Your task to perform on an android device: Go to privacy settings Image 0: 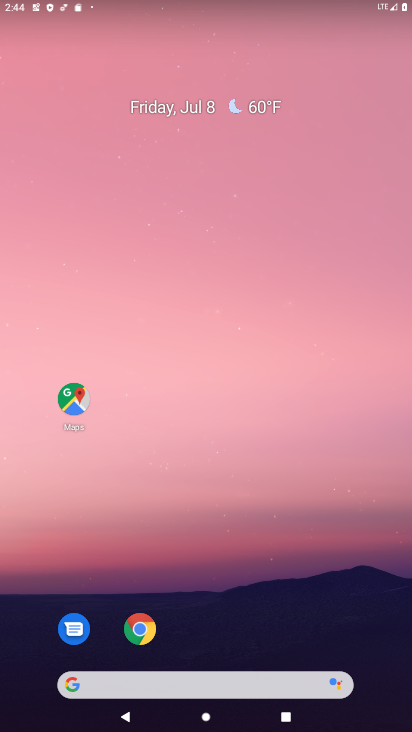
Step 0: drag from (211, 640) to (223, 227)
Your task to perform on an android device: Go to privacy settings Image 1: 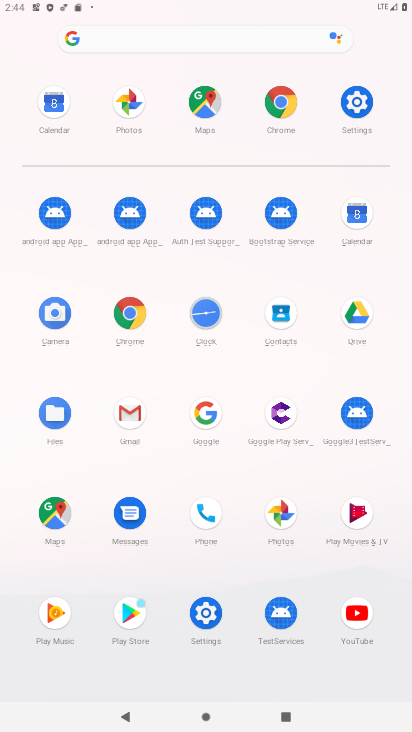
Step 1: click (355, 109)
Your task to perform on an android device: Go to privacy settings Image 2: 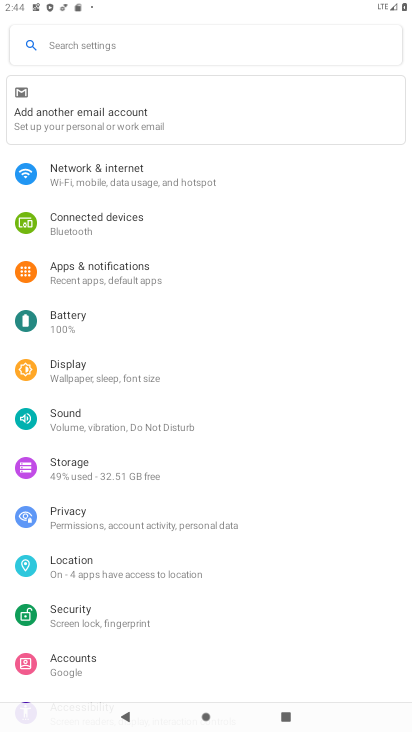
Step 2: click (129, 515)
Your task to perform on an android device: Go to privacy settings Image 3: 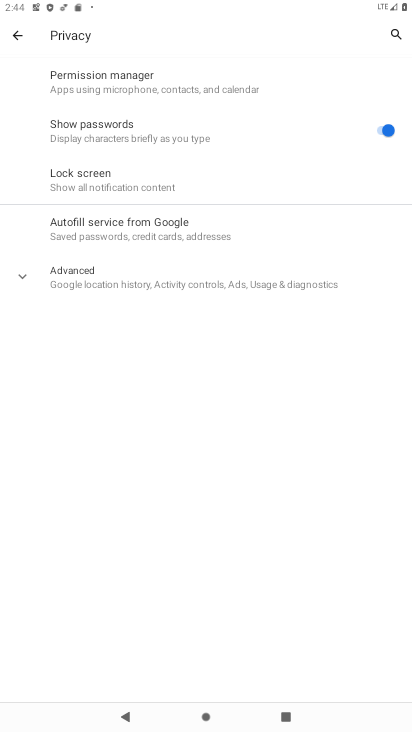
Step 3: task complete